Your task to perform on an android device: Go to accessibility settings Image 0: 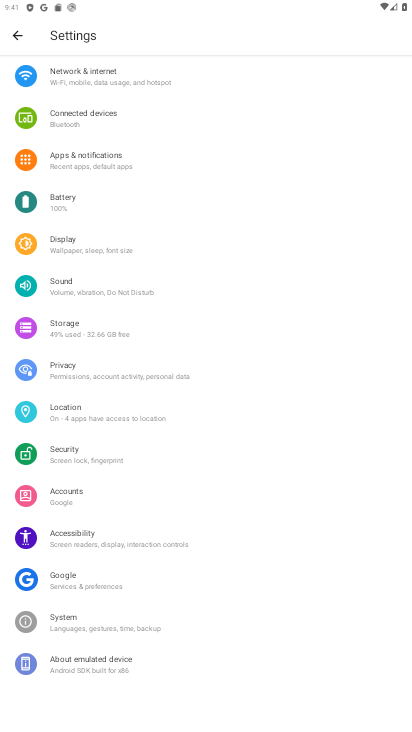
Step 0: click (128, 539)
Your task to perform on an android device: Go to accessibility settings Image 1: 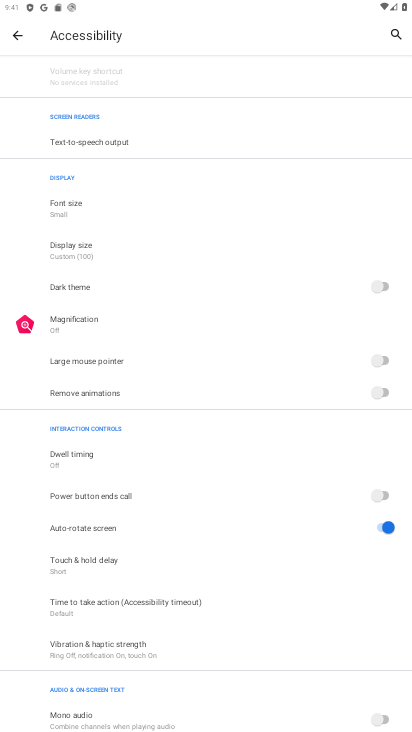
Step 1: task complete